Your task to perform on an android device: Go to eBay Image 0: 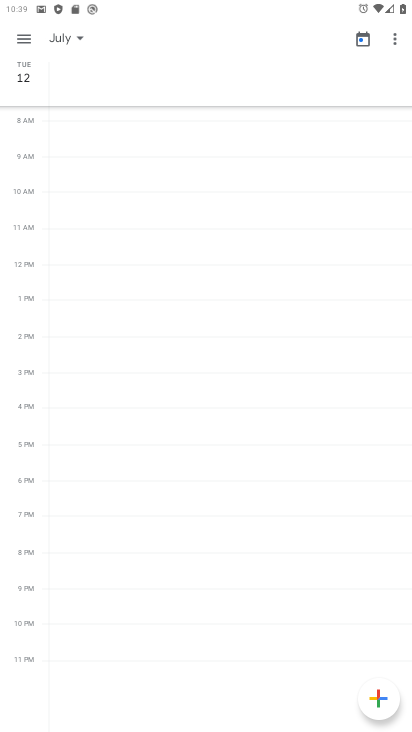
Step 0: press home button
Your task to perform on an android device: Go to eBay Image 1: 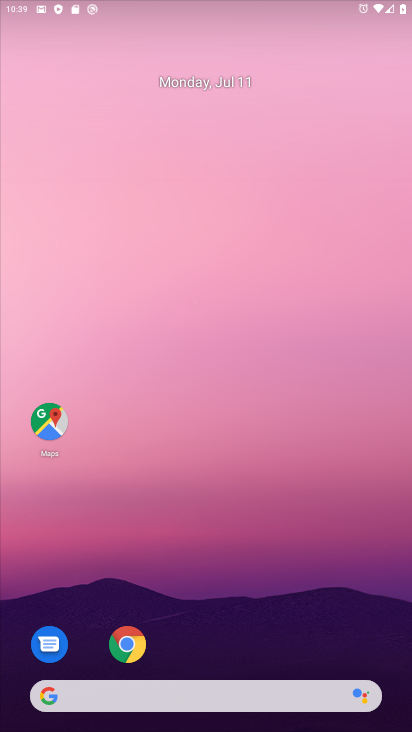
Step 1: drag from (182, 588) to (157, 304)
Your task to perform on an android device: Go to eBay Image 2: 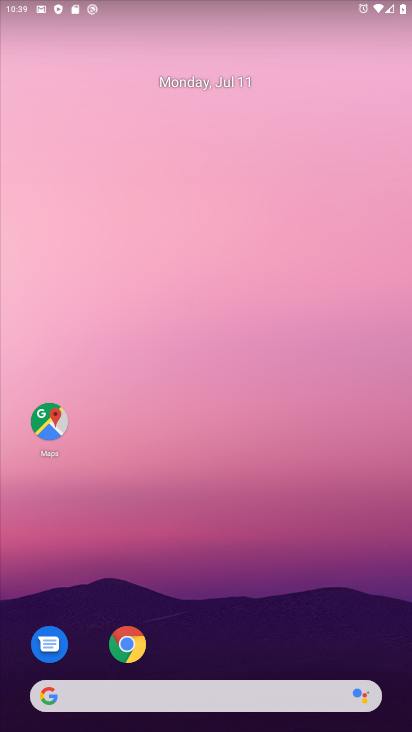
Step 2: drag from (257, 660) to (228, 301)
Your task to perform on an android device: Go to eBay Image 3: 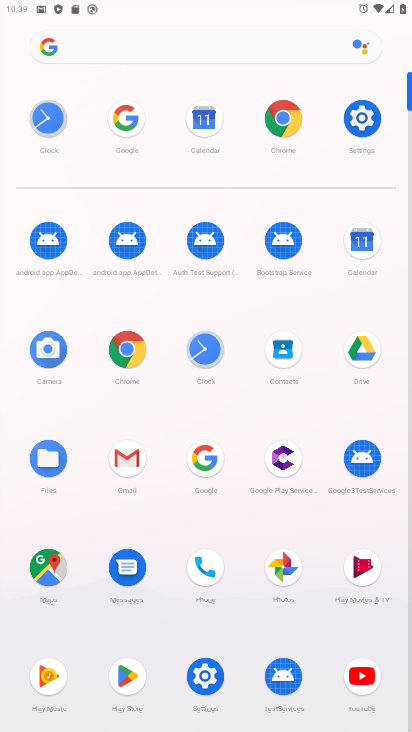
Step 3: click (295, 107)
Your task to perform on an android device: Go to eBay Image 4: 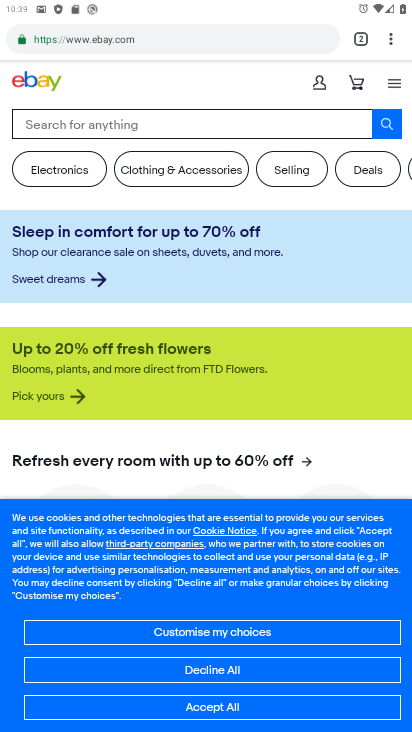
Step 4: task complete